Your task to perform on an android device: set the stopwatch Image 0: 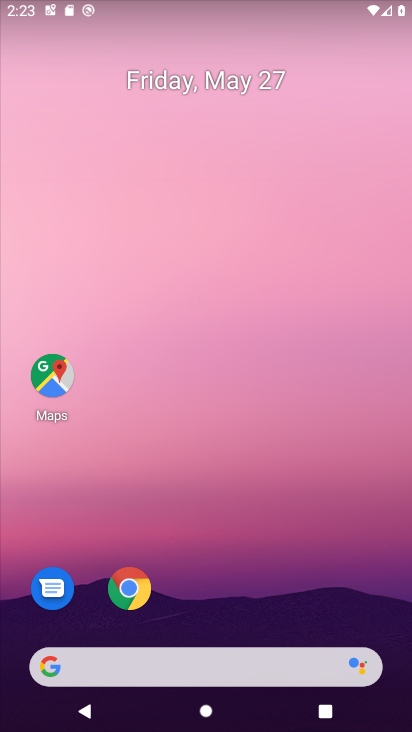
Step 0: drag from (235, 503) to (231, 18)
Your task to perform on an android device: set the stopwatch Image 1: 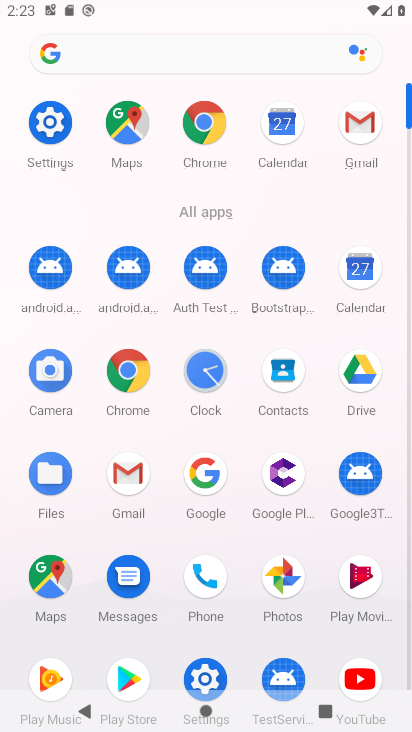
Step 1: click (213, 376)
Your task to perform on an android device: set the stopwatch Image 2: 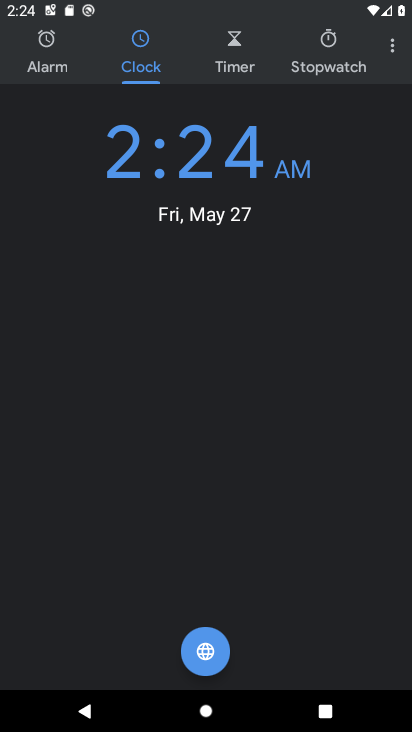
Step 2: click (323, 46)
Your task to perform on an android device: set the stopwatch Image 3: 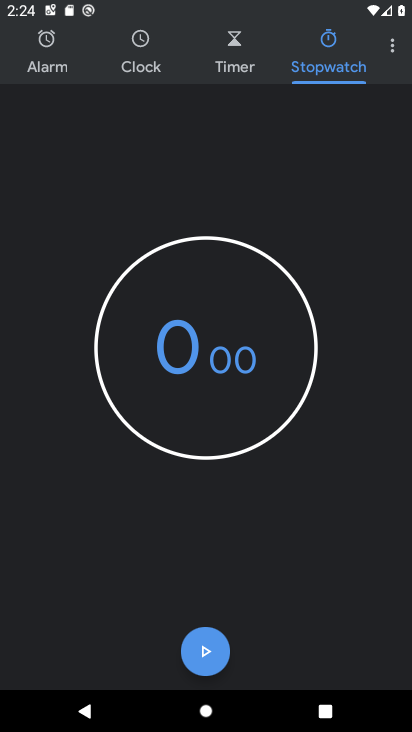
Step 3: click (207, 651)
Your task to perform on an android device: set the stopwatch Image 4: 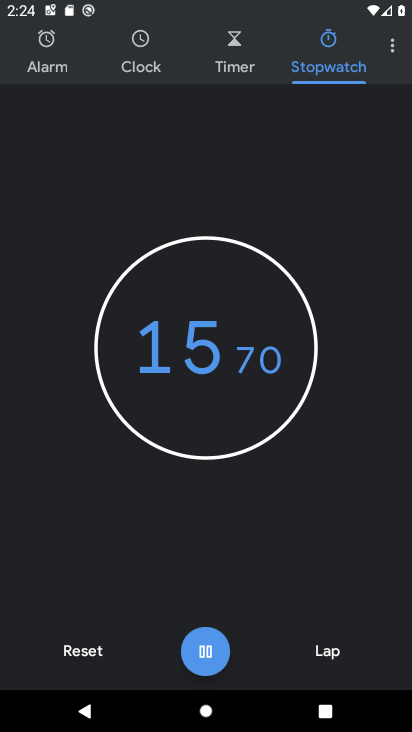
Step 4: task complete